Your task to perform on an android device: open chrome privacy settings Image 0: 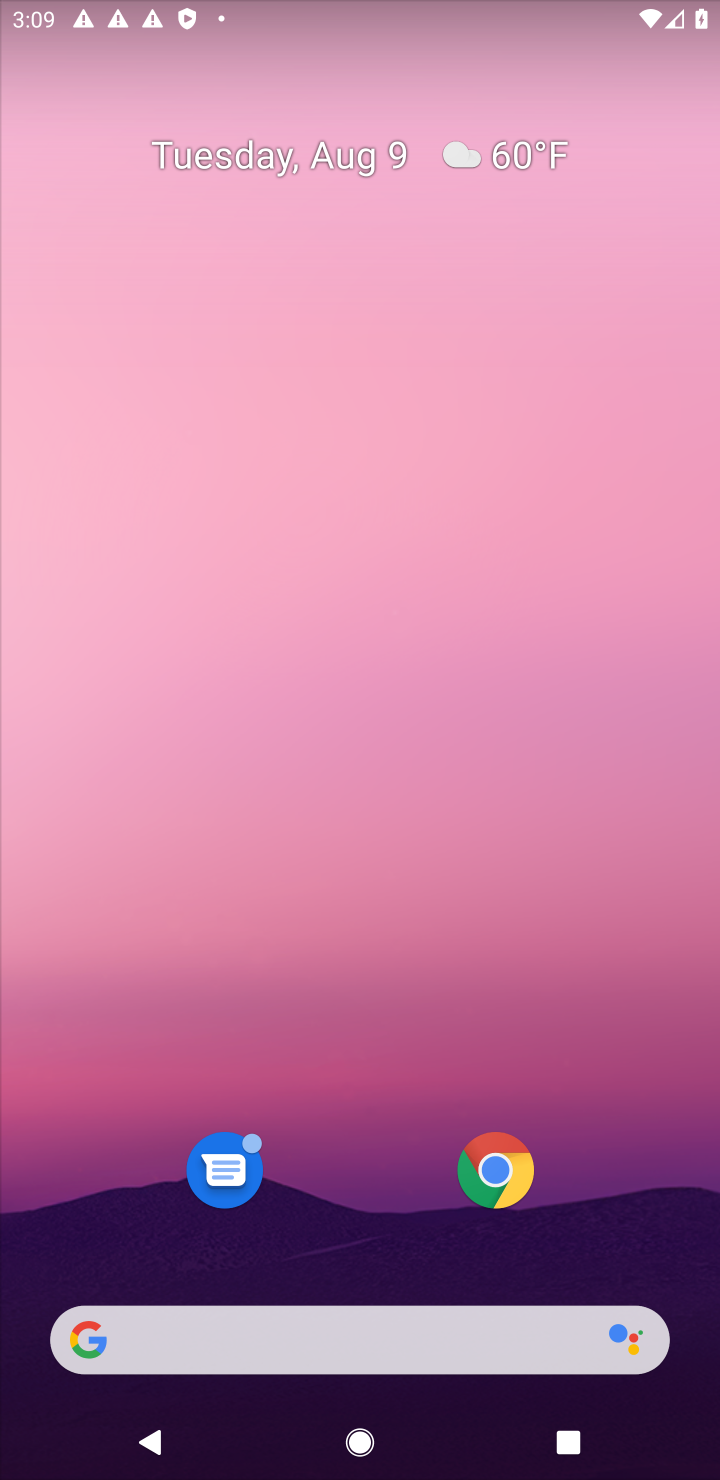
Step 0: press home button
Your task to perform on an android device: open chrome privacy settings Image 1: 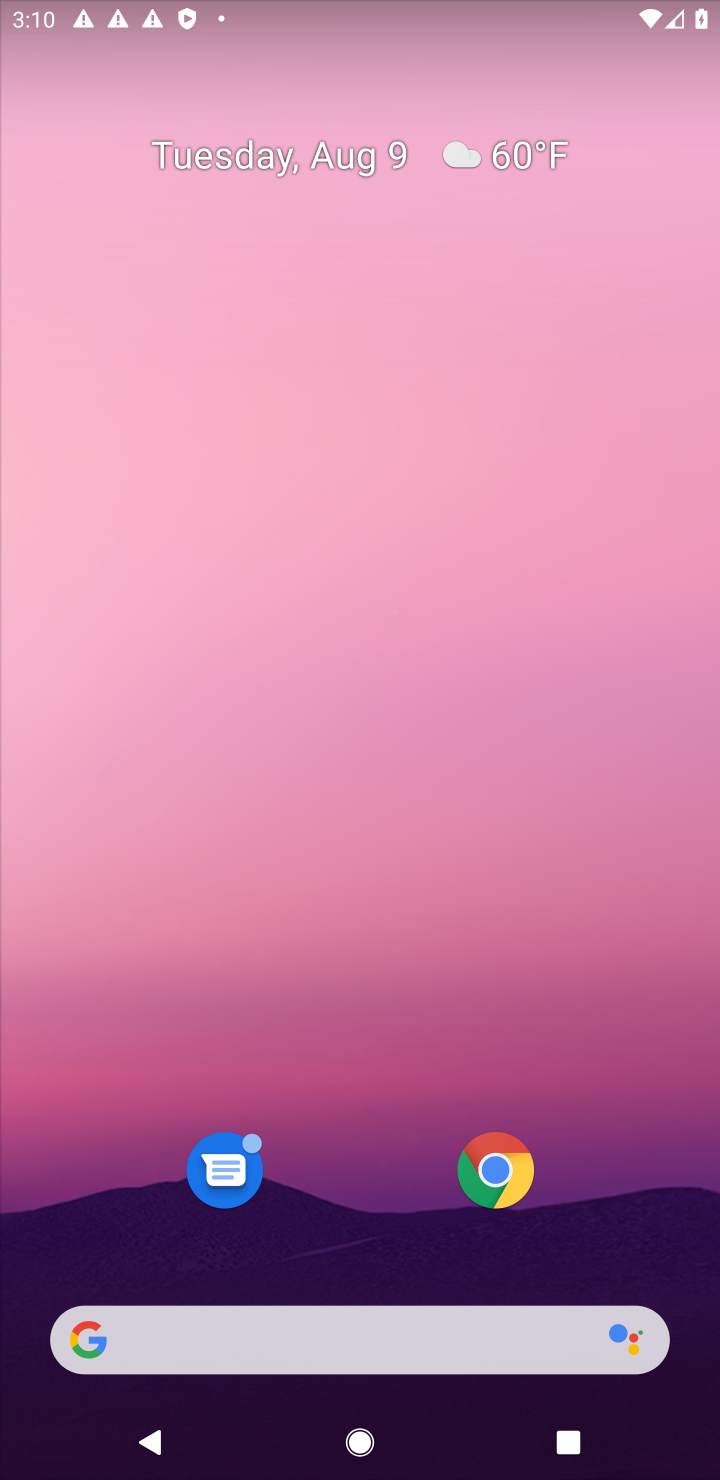
Step 1: click (448, 254)
Your task to perform on an android device: open chrome privacy settings Image 2: 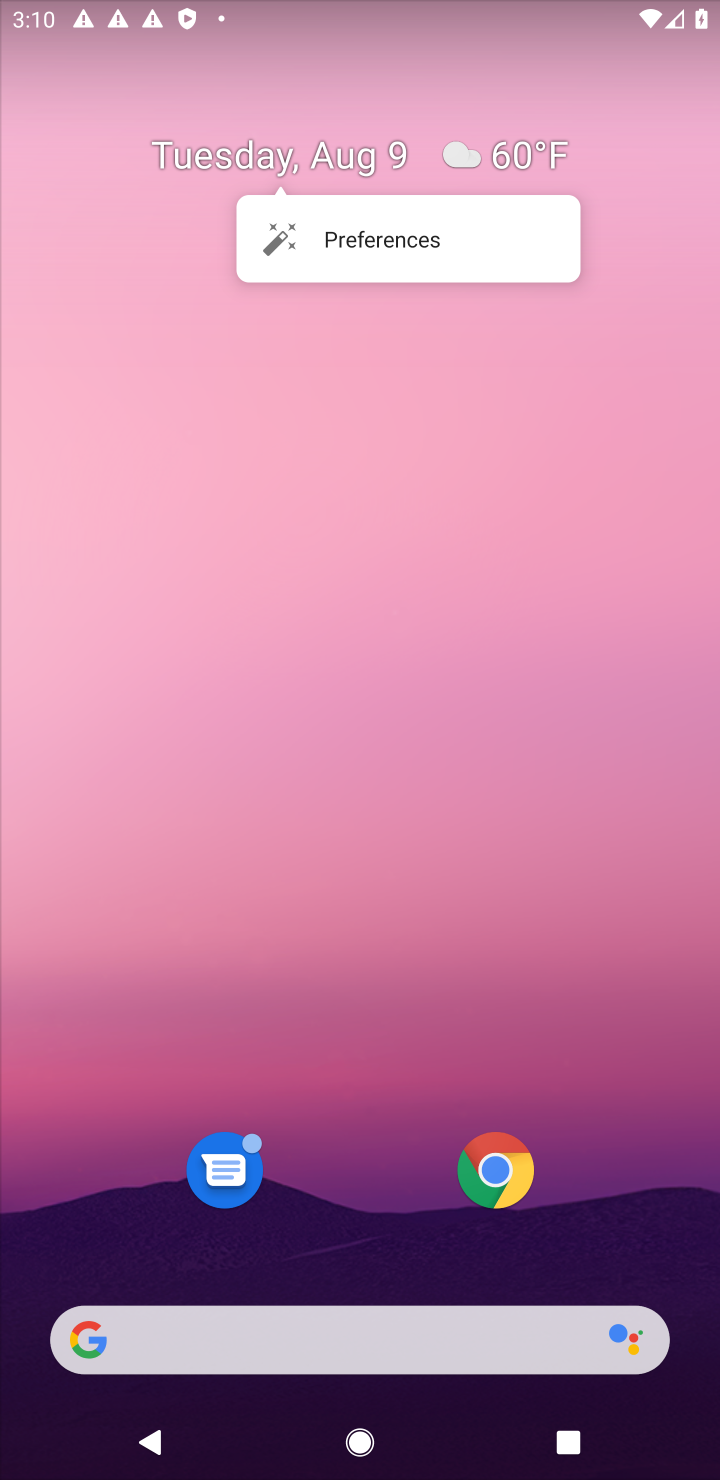
Step 2: drag from (413, 1154) to (444, 154)
Your task to perform on an android device: open chrome privacy settings Image 3: 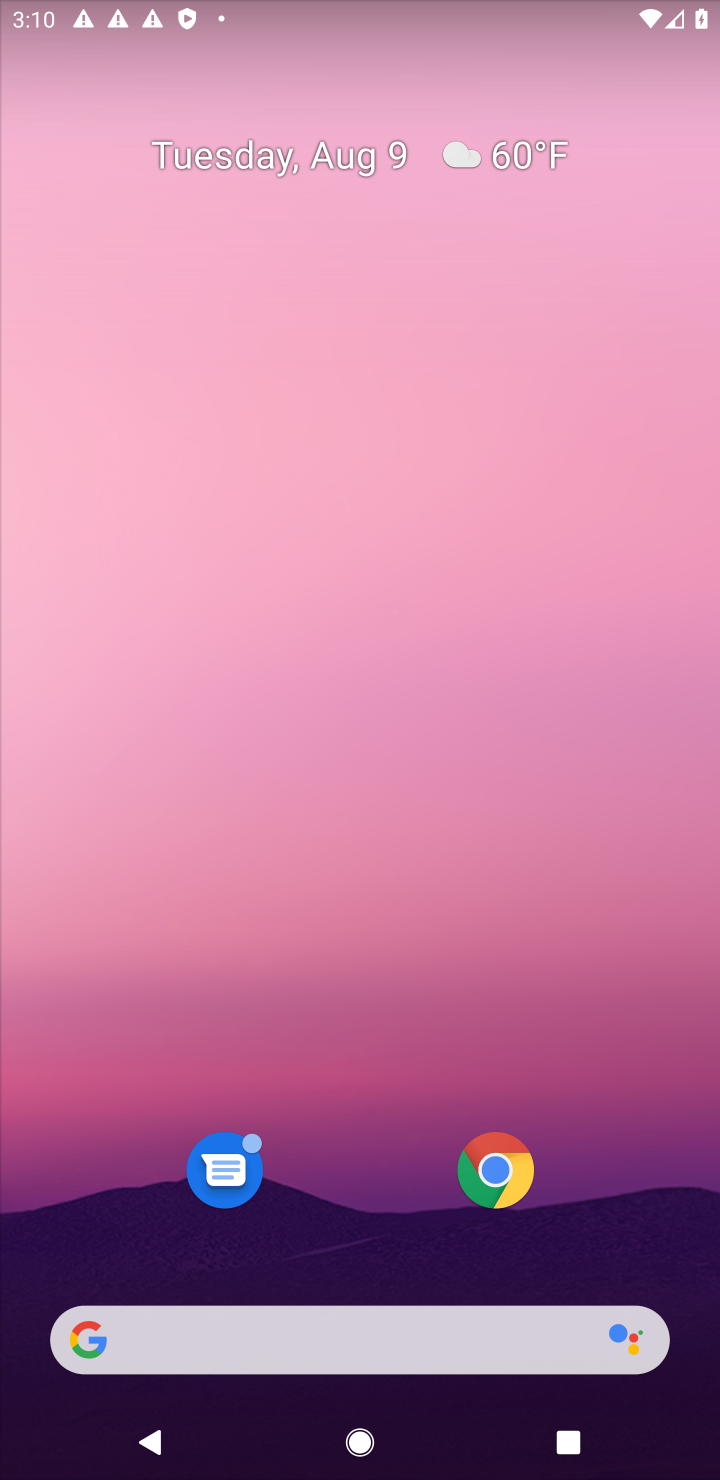
Step 3: click (448, 77)
Your task to perform on an android device: open chrome privacy settings Image 4: 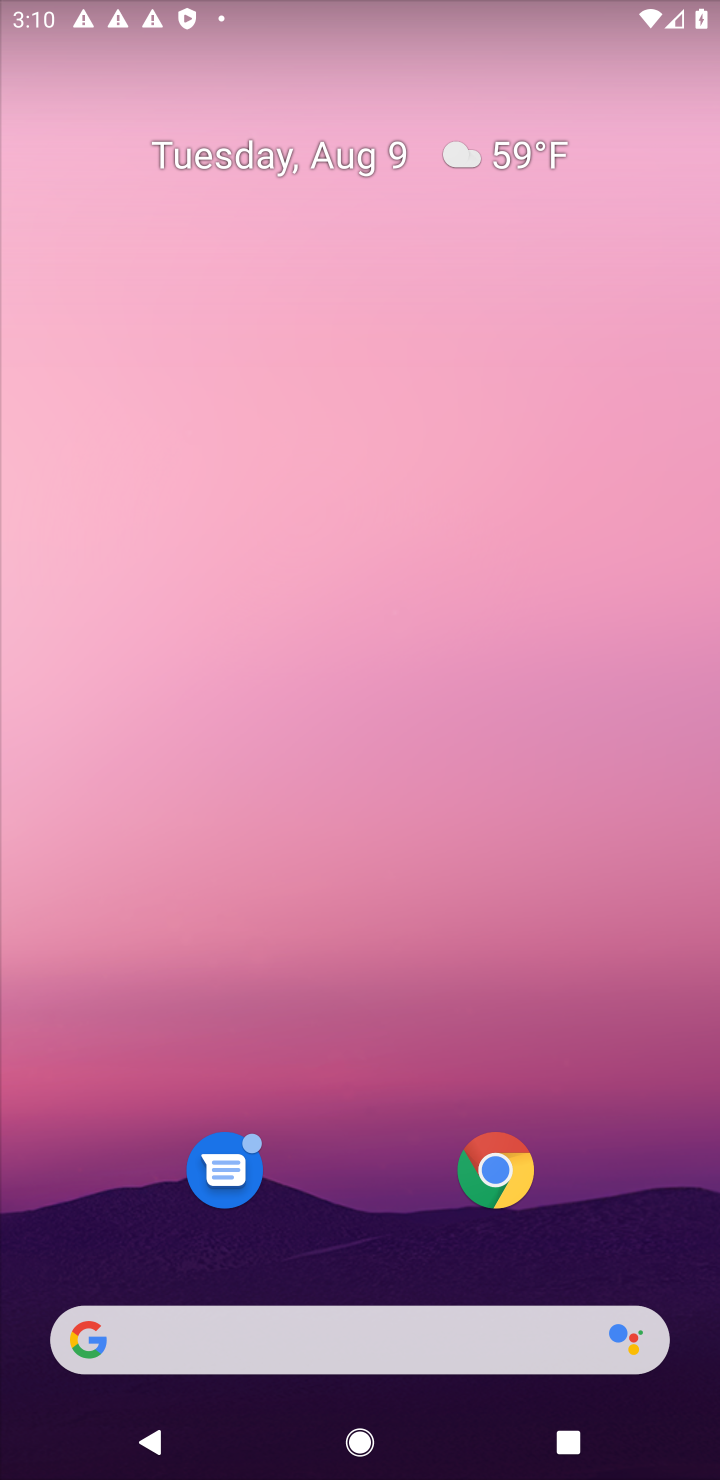
Step 4: drag from (443, 455) to (696, 1077)
Your task to perform on an android device: open chrome privacy settings Image 5: 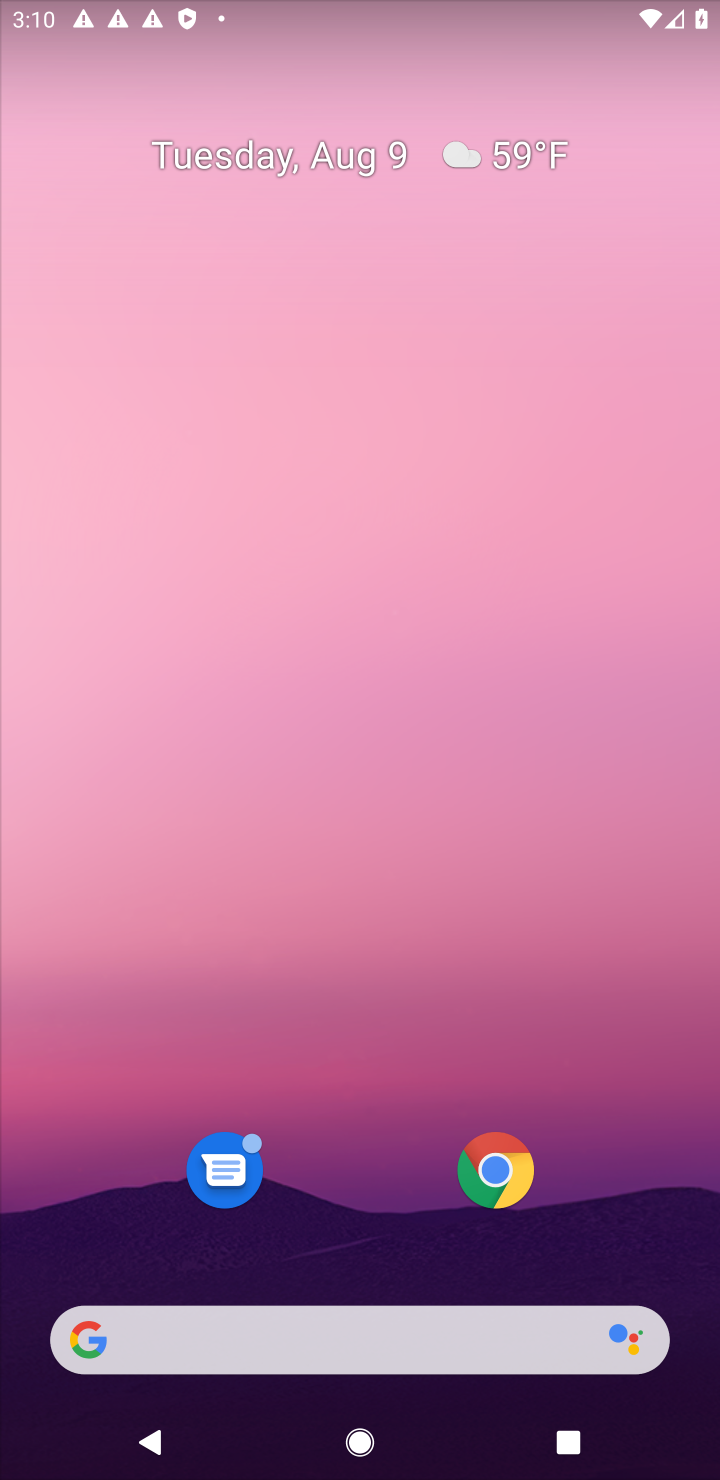
Step 5: drag from (361, 1187) to (374, 230)
Your task to perform on an android device: open chrome privacy settings Image 6: 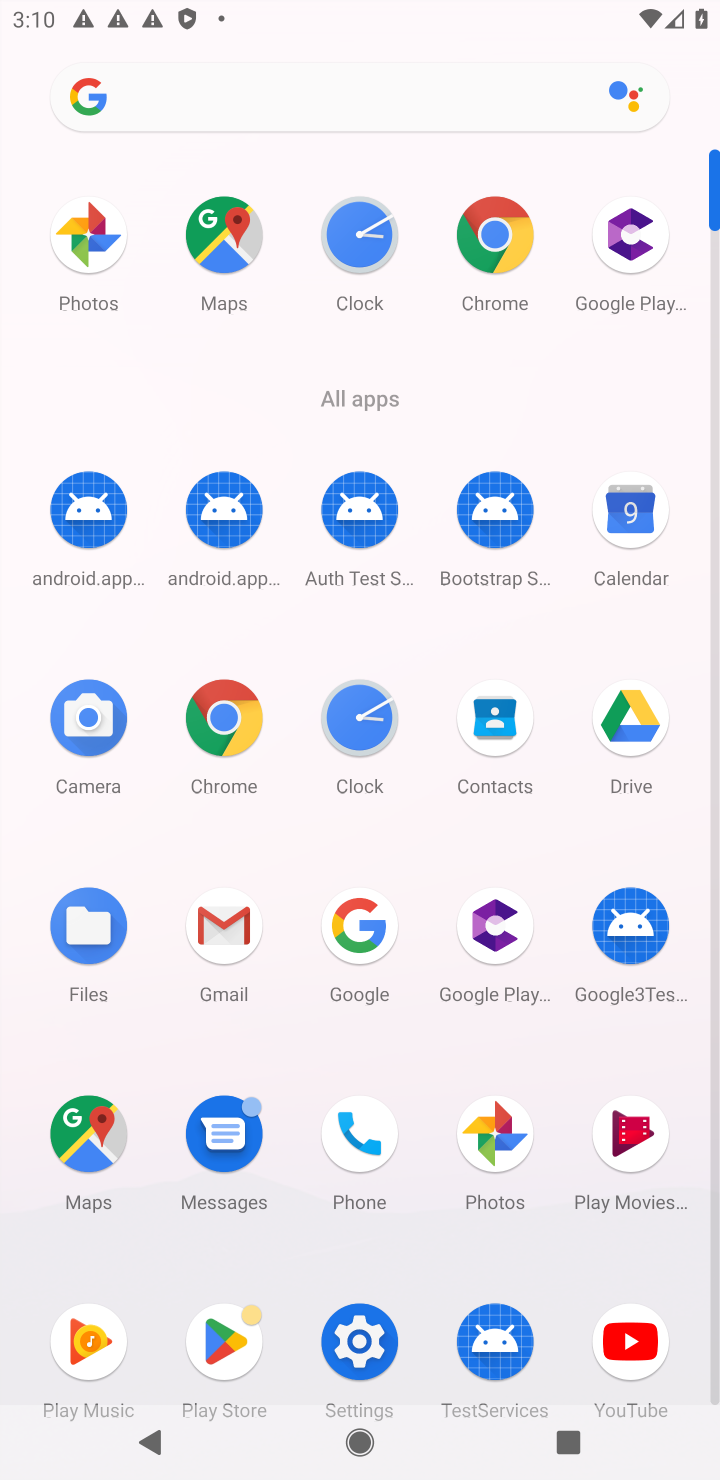
Step 6: click (358, 1343)
Your task to perform on an android device: open chrome privacy settings Image 7: 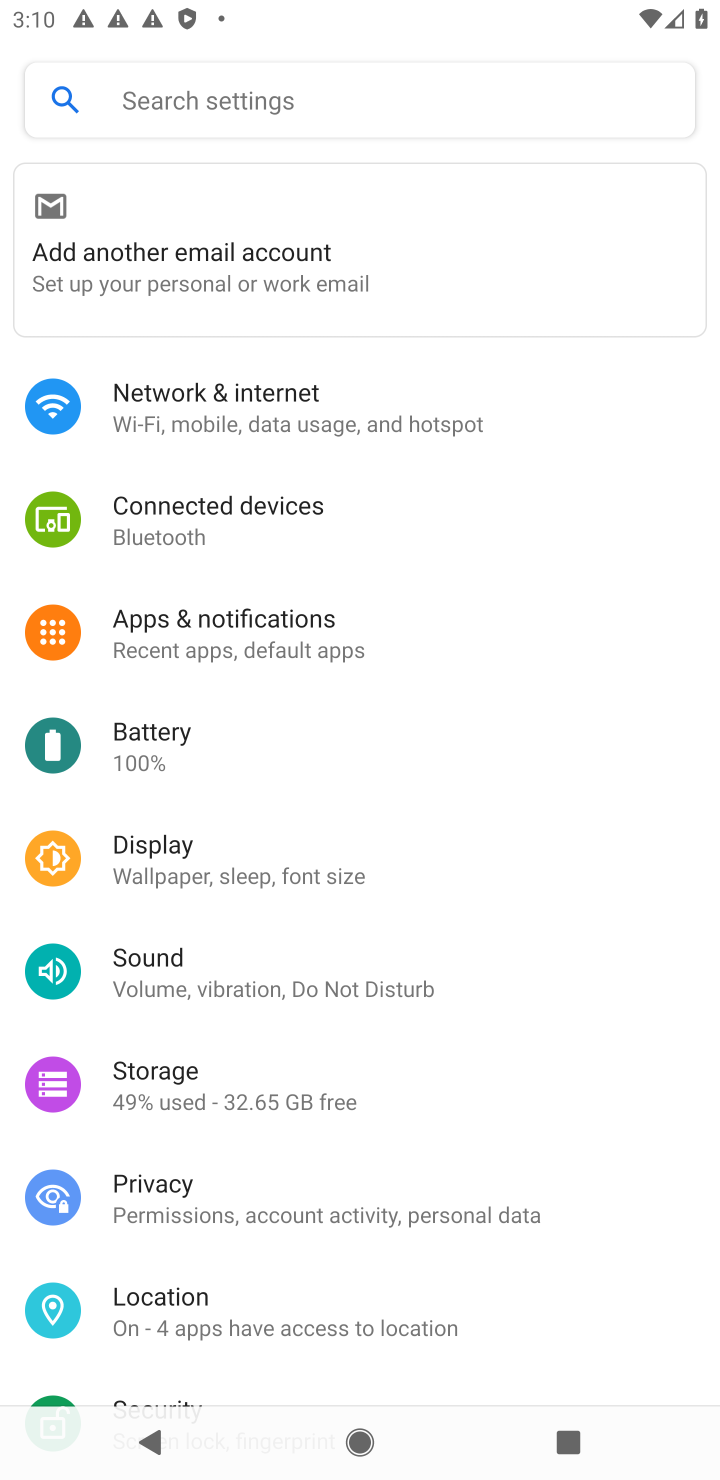
Step 7: click (277, 1214)
Your task to perform on an android device: open chrome privacy settings Image 8: 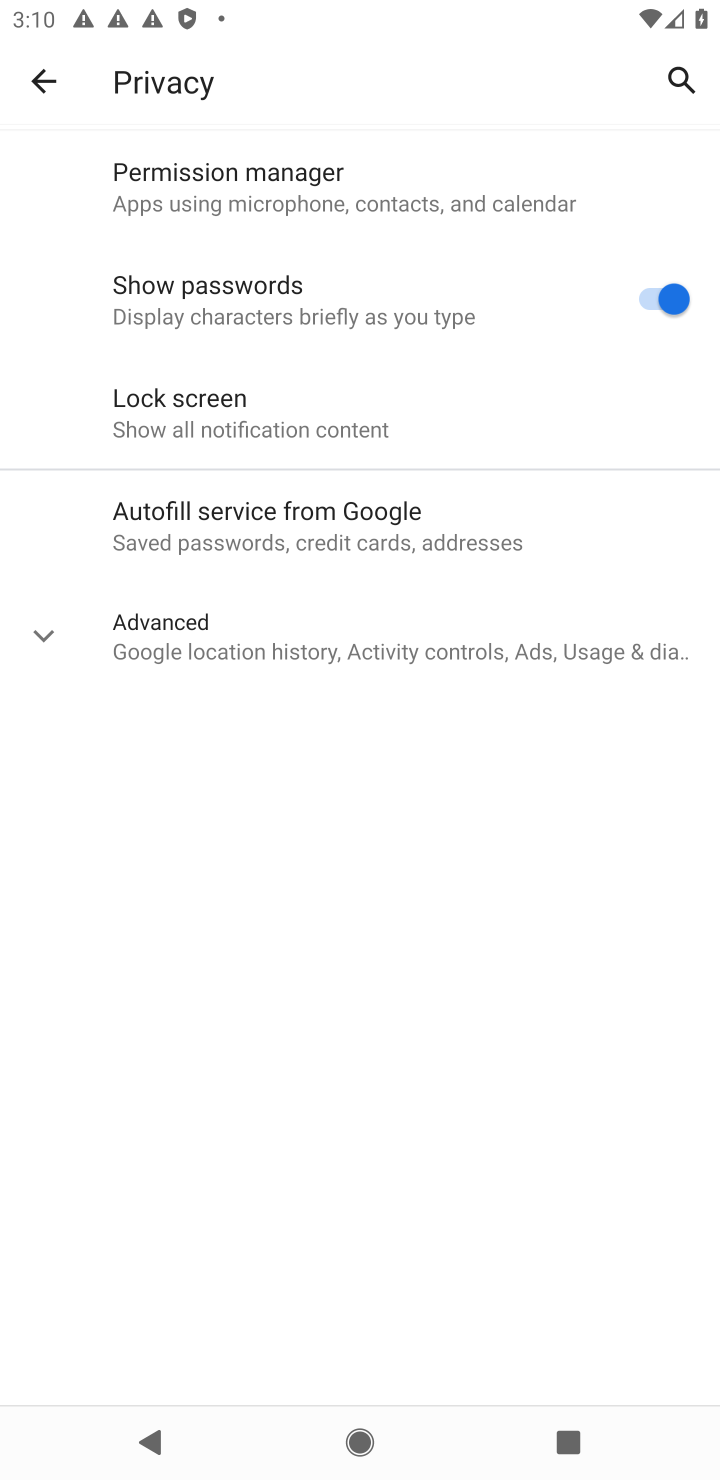
Step 8: task complete